Your task to perform on an android device: How do I get to the nearest Verizon Store? Image 0: 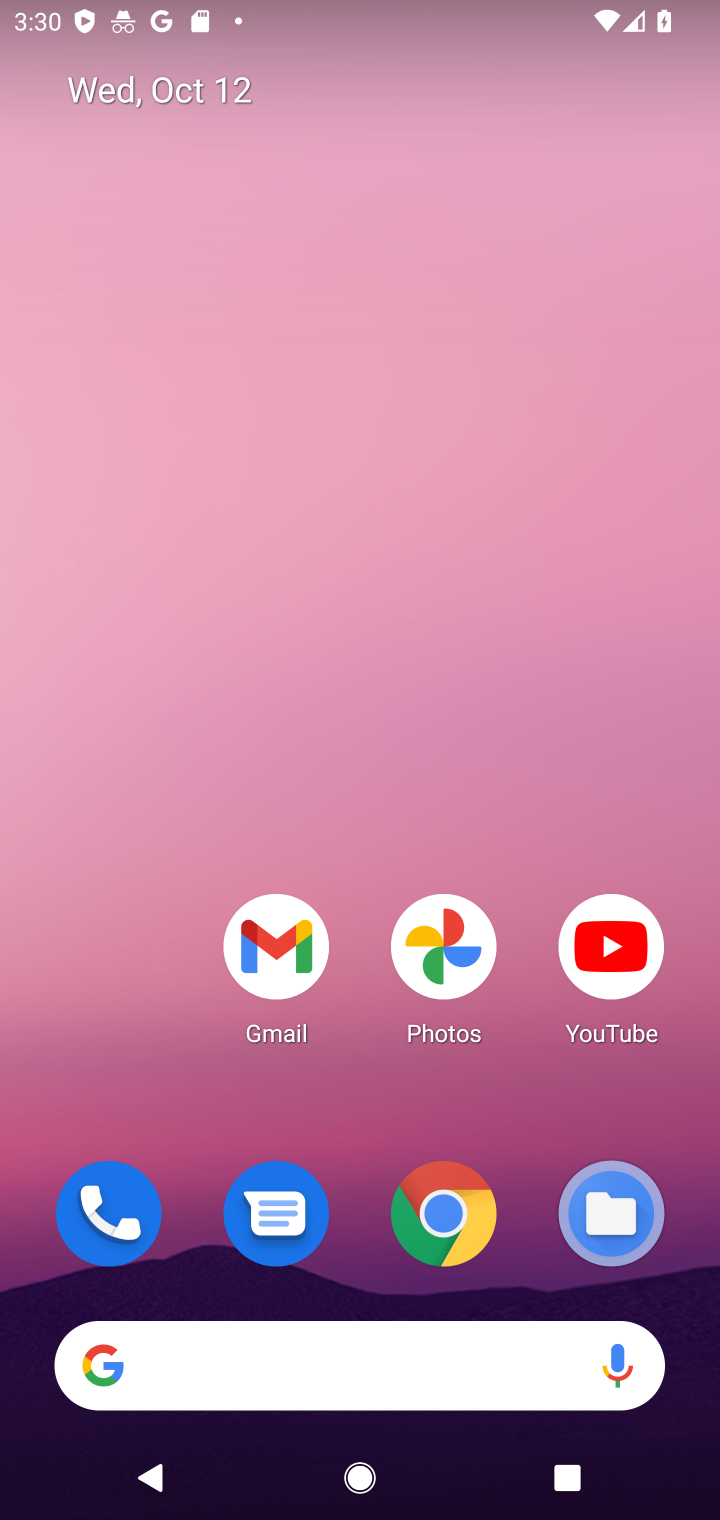
Step 0: click (246, 1354)
Your task to perform on an android device: How do I get to the nearest Verizon Store? Image 1: 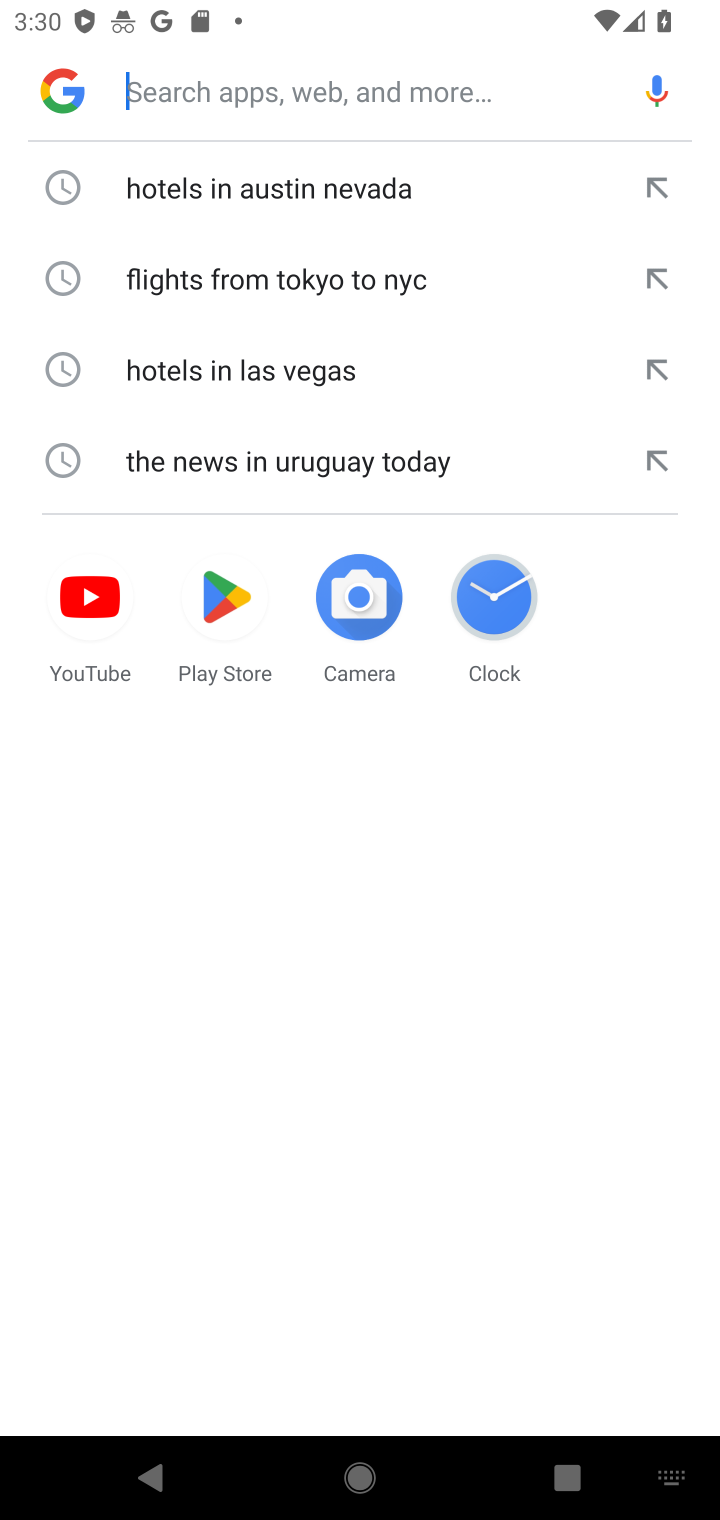
Step 1: click (197, 52)
Your task to perform on an android device: How do I get to the nearest Verizon Store? Image 2: 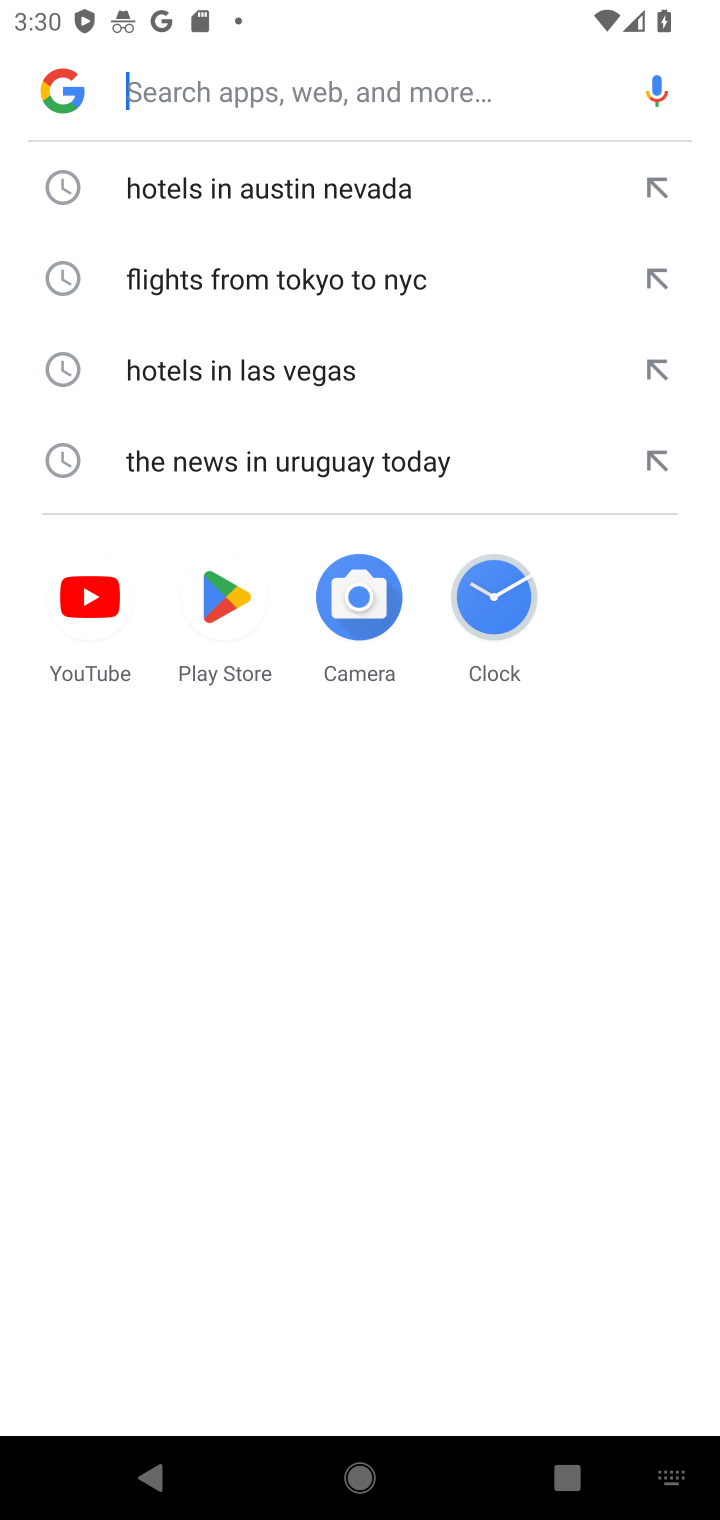
Step 2: type "How do I get to the nearest Verizon Store?"
Your task to perform on an android device: How do I get to the nearest Verizon Store? Image 3: 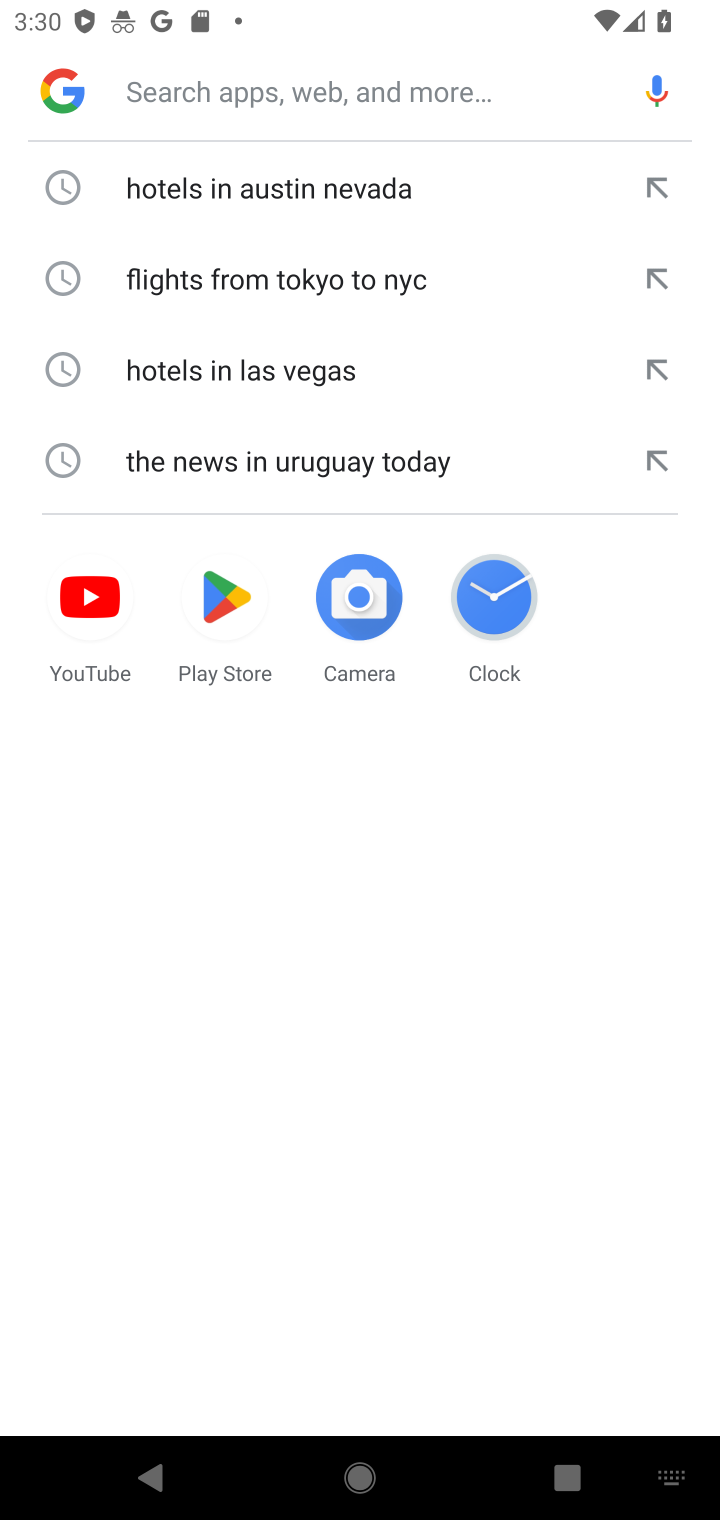
Step 3: click (187, 1111)
Your task to perform on an android device: How do I get to the nearest Verizon Store? Image 4: 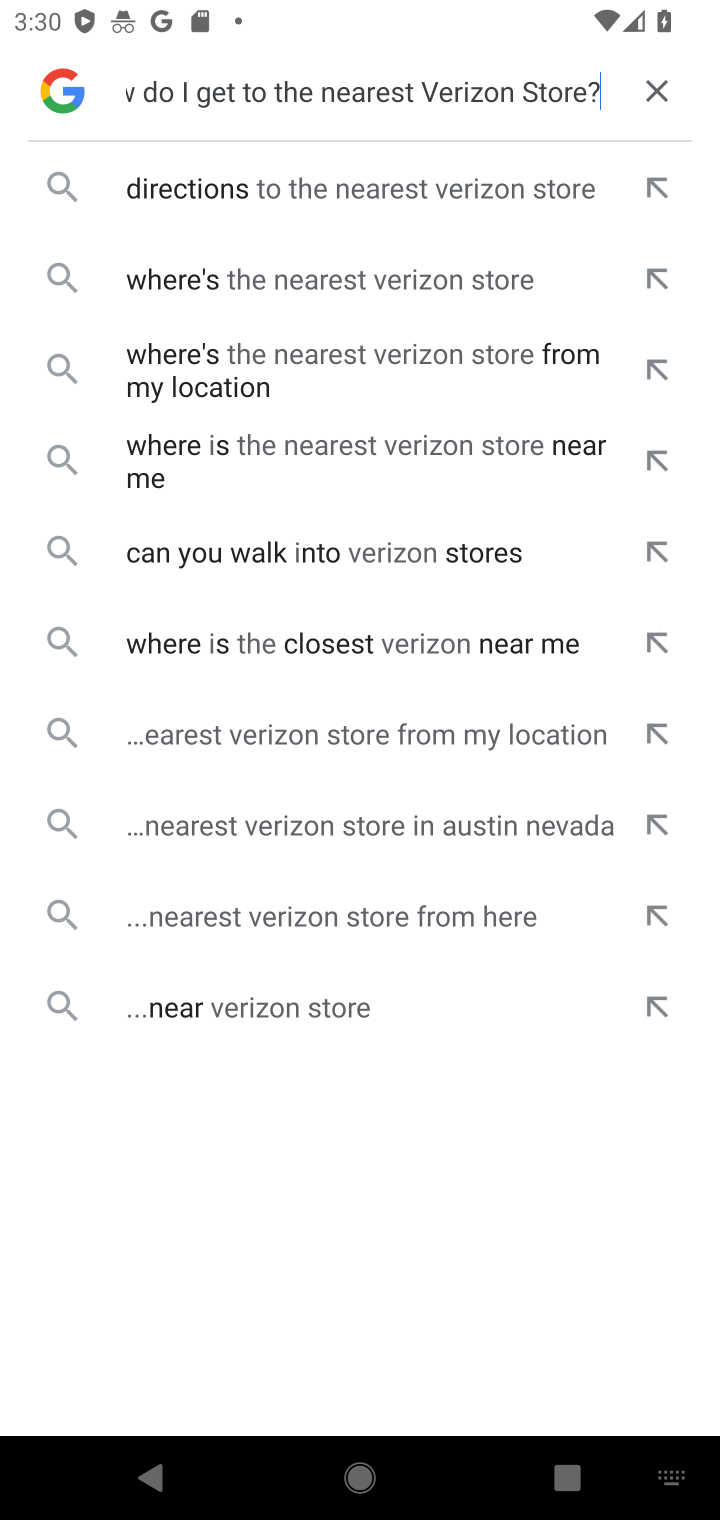
Step 4: click (294, 186)
Your task to perform on an android device: How do I get to the nearest Verizon Store? Image 5: 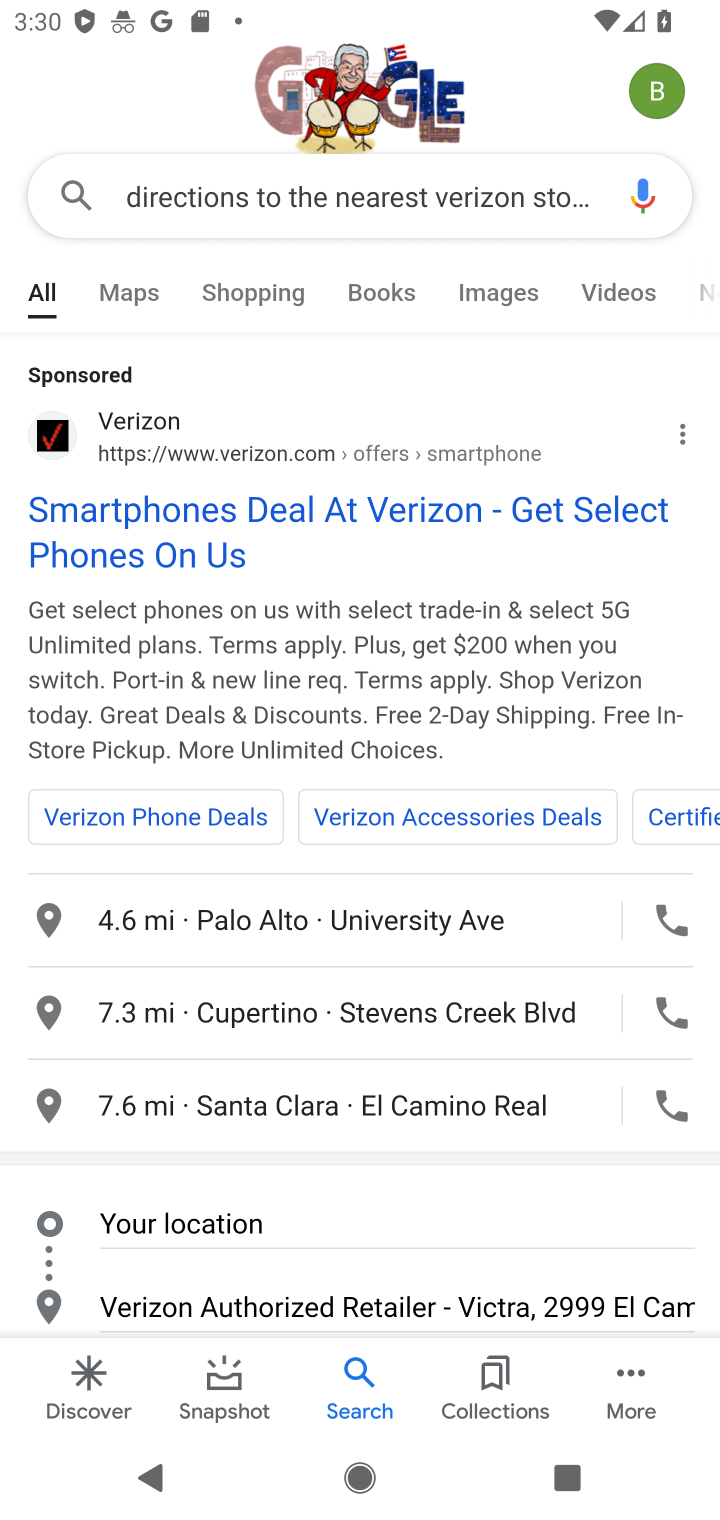
Step 5: task complete